Your task to perform on an android device: toggle airplane mode Image 0: 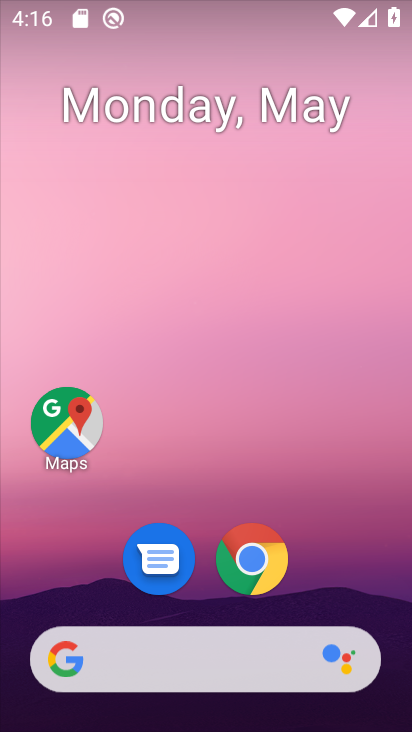
Step 0: drag from (308, 451) to (237, 5)
Your task to perform on an android device: toggle airplane mode Image 1: 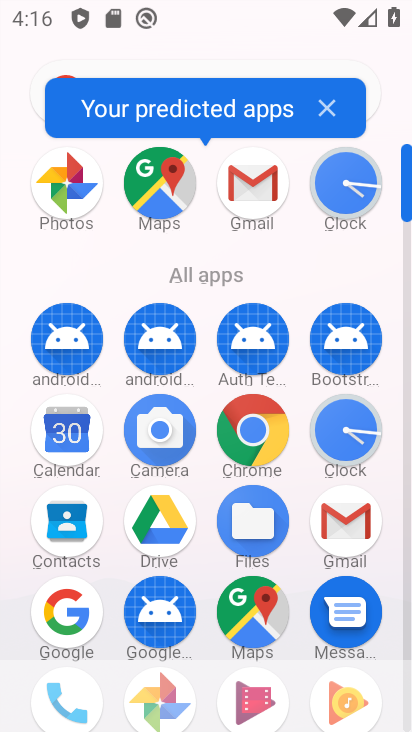
Step 1: drag from (12, 310) to (12, 228)
Your task to perform on an android device: toggle airplane mode Image 2: 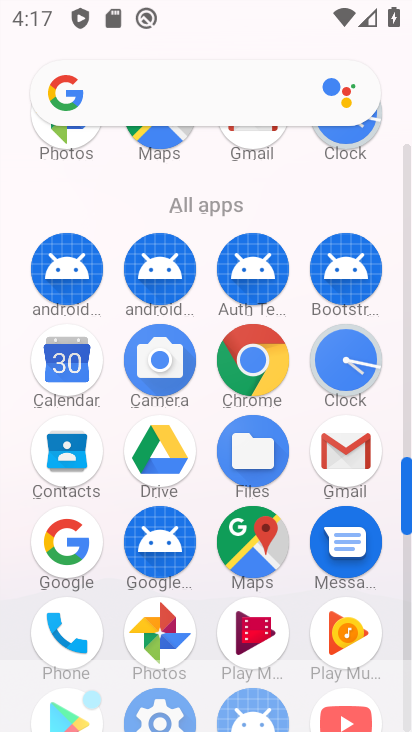
Step 2: drag from (14, 591) to (21, 217)
Your task to perform on an android device: toggle airplane mode Image 3: 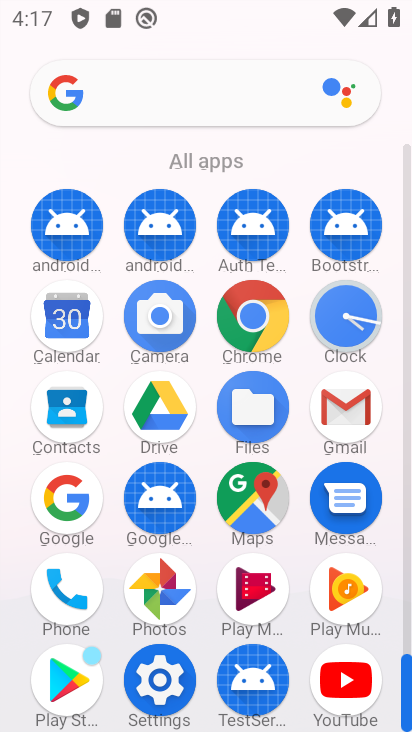
Step 3: click (161, 678)
Your task to perform on an android device: toggle airplane mode Image 4: 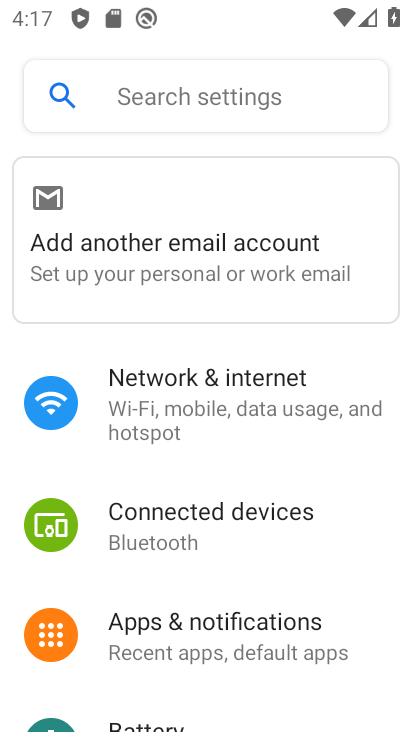
Step 4: click (189, 392)
Your task to perform on an android device: toggle airplane mode Image 5: 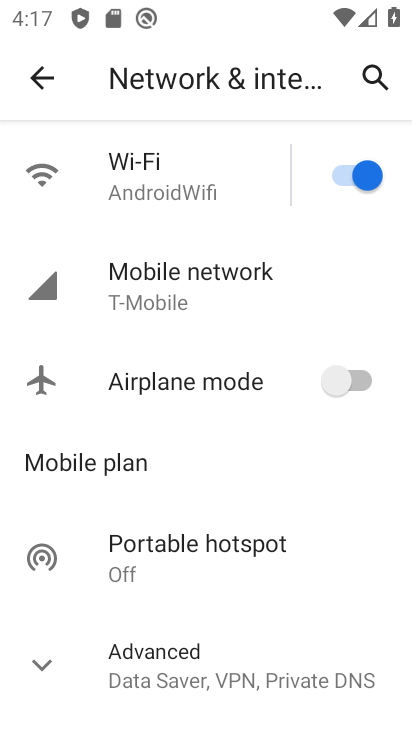
Step 5: click (337, 382)
Your task to perform on an android device: toggle airplane mode Image 6: 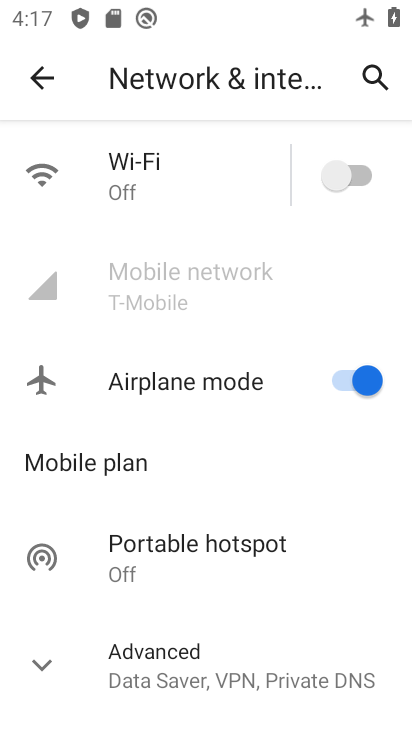
Step 6: click (39, 660)
Your task to perform on an android device: toggle airplane mode Image 7: 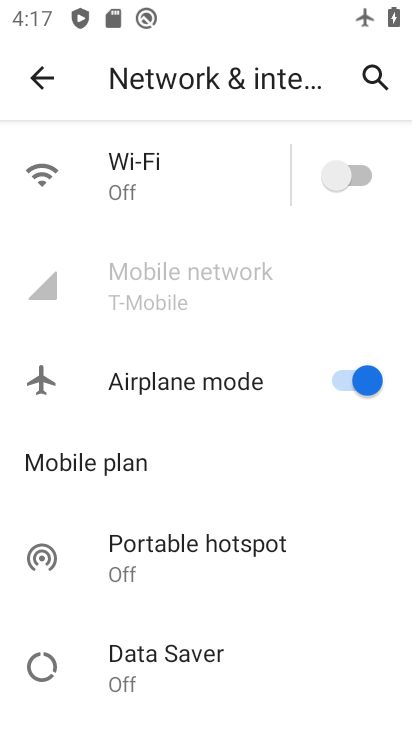
Step 7: task complete